Your task to perform on an android device: snooze an email in the gmail app Image 0: 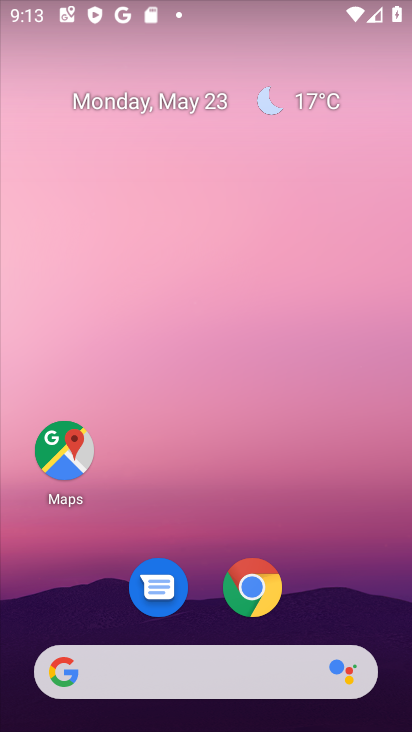
Step 0: drag from (203, 440) to (290, 27)
Your task to perform on an android device: snooze an email in the gmail app Image 1: 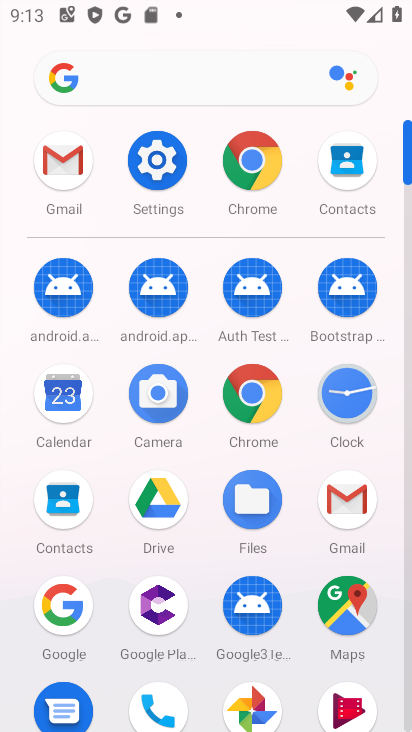
Step 1: click (53, 153)
Your task to perform on an android device: snooze an email in the gmail app Image 2: 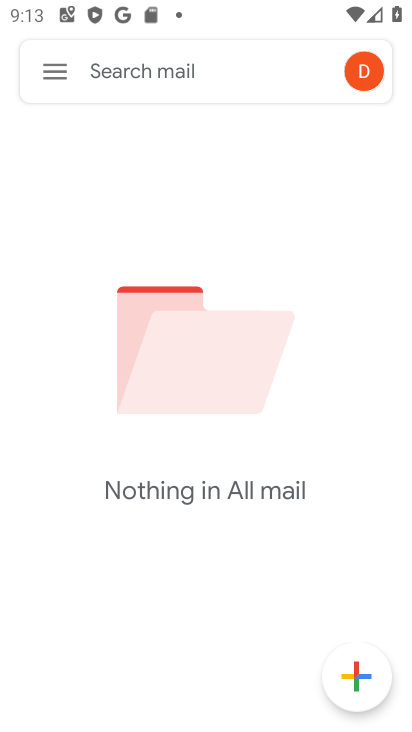
Step 2: task complete